Your task to perform on an android device: Open Youtube and go to "Your channel" Image 0: 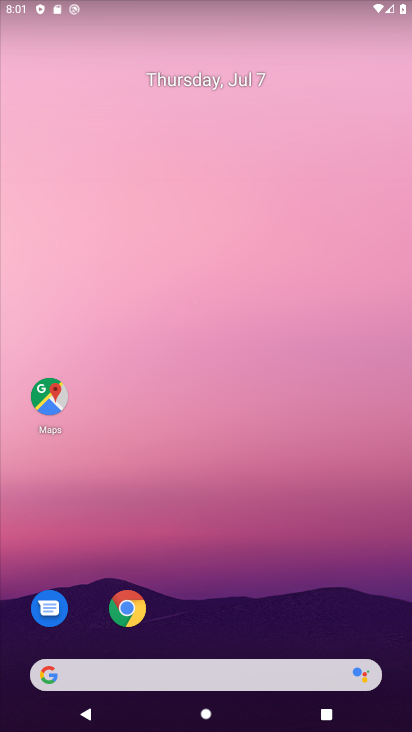
Step 0: drag from (188, 618) to (224, 206)
Your task to perform on an android device: Open Youtube and go to "Your channel" Image 1: 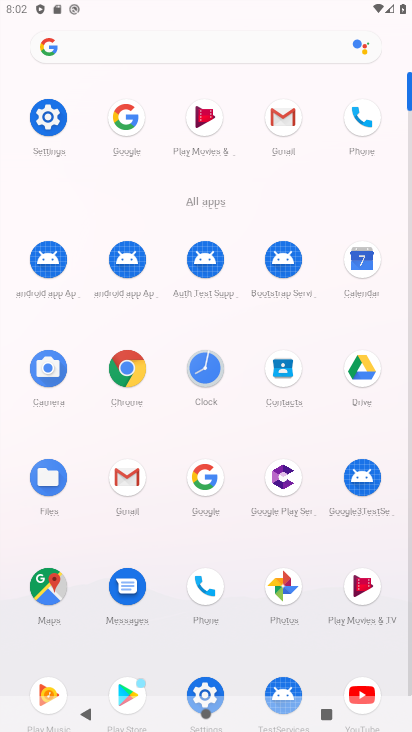
Step 1: drag from (237, 551) to (247, 291)
Your task to perform on an android device: Open Youtube and go to "Your channel" Image 2: 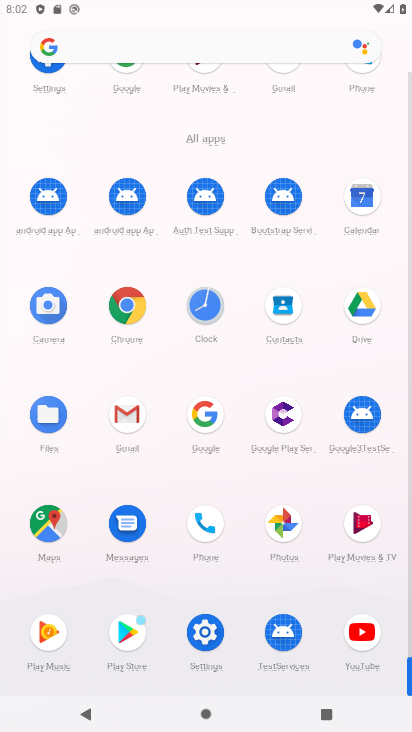
Step 2: click (350, 624)
Your task to perform on an android device: Open Youtube and go to "Your channel" Image 3: 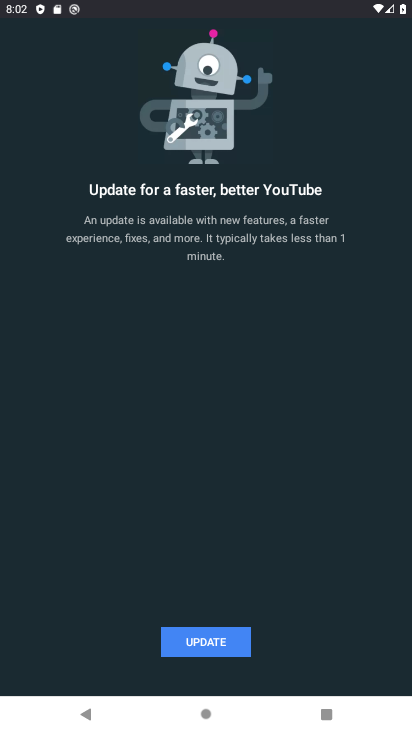
Step 3: click (204, 648)
Your task to perform on an android device: Open Youtube and go to "Your channel" Image 4: 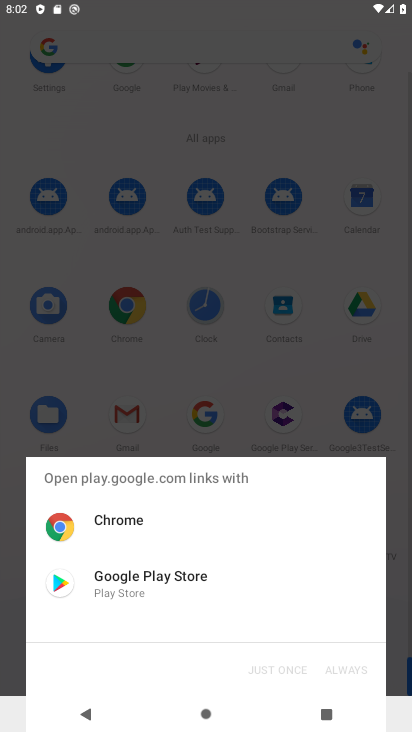
Step 4: click (186, 584)
Your task to perform on an android device: Open Youtube and go to "Your channel" Image 5: 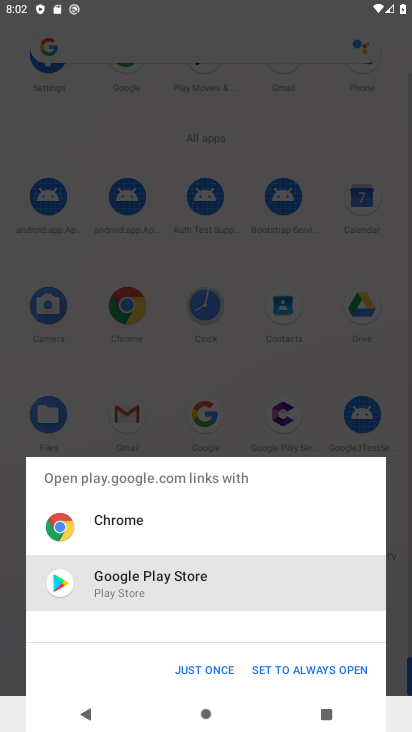
Step 5: click (206, 677)
Your task to perform on an android device: Open Youtube and go to "Your channel" Image 6: 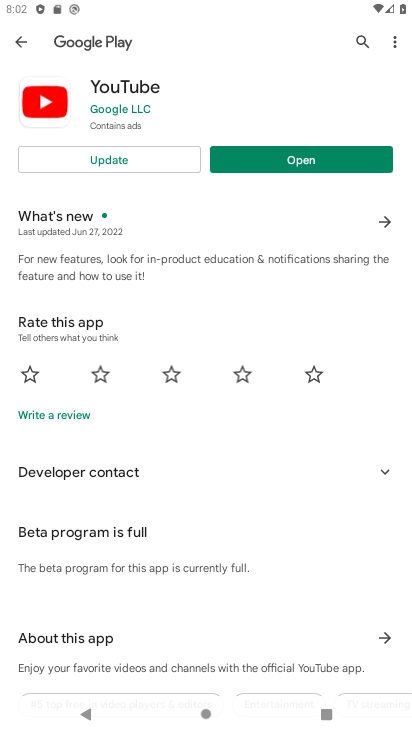
Step 6: click (125, 163)
Your task to perform on an android device: Open Youtube and go to "Your channel" Image 7: 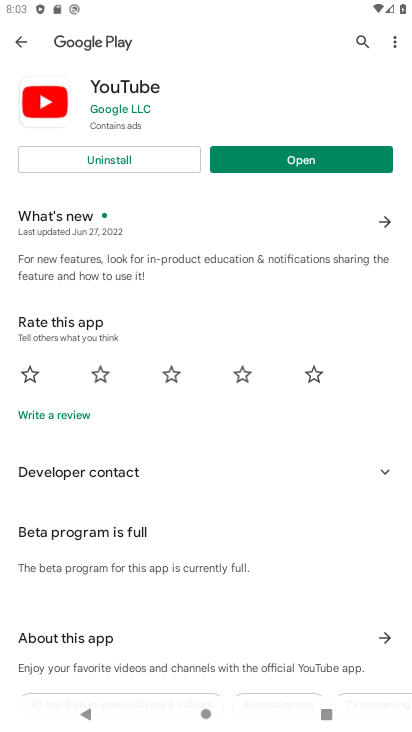
Step 7: click (250, 163)
Your task to perform on an android device: Open Youtube and go to "Your channel" Image 8: 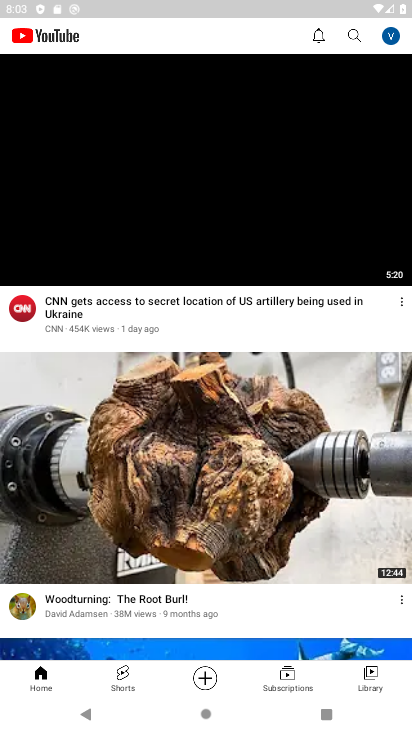
Step 8: click (393, 36)
Your task to perform on an android device: Open Youtube and go to "Your channel" Image 9: 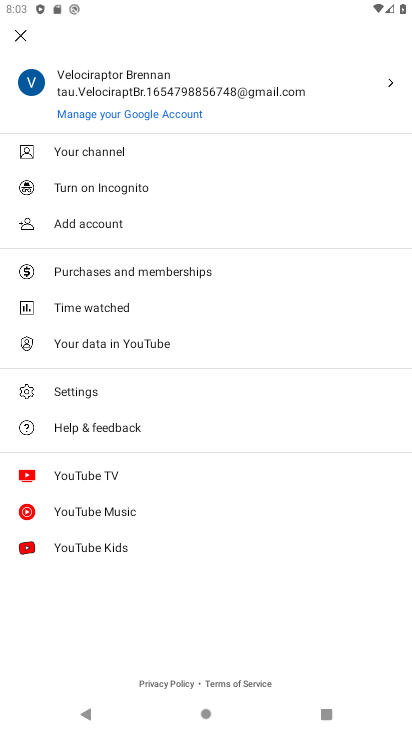
Step 9: click (113, 154)
Your task to perform on an android device: Open Youtube and go to "Your channel" Image 10: 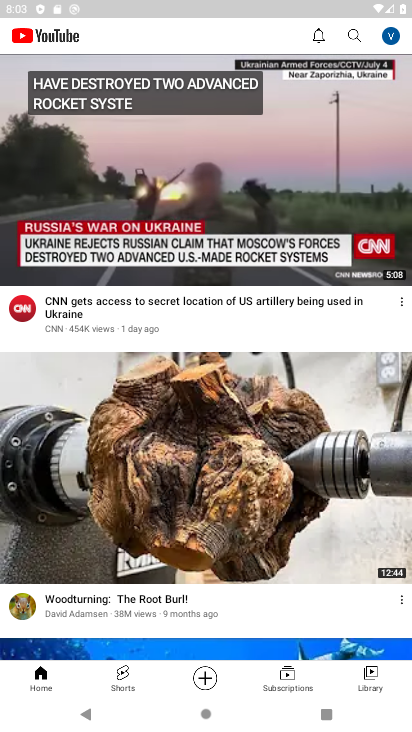
Step 10: click (383, 38)
Your task to perform on an android device: Open Youtube and go to "Your channel" Image 11: 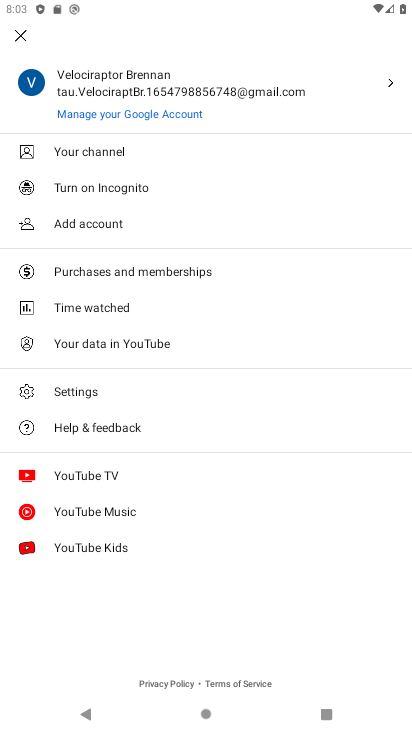
Step 11: click (127, 154)
Your task to perform on an android device: Open Youtube and go to "Your channel" Image 12: 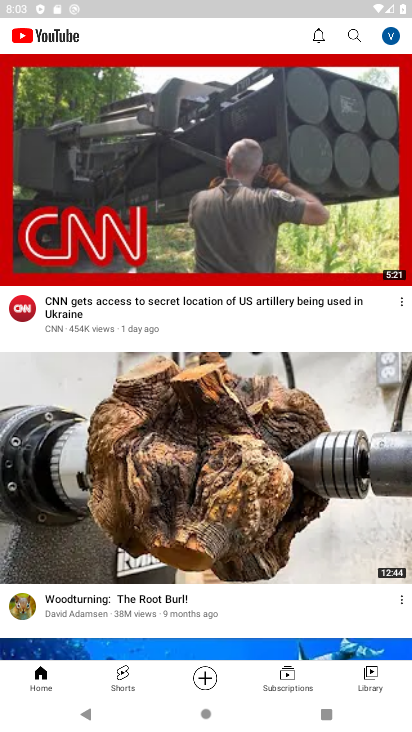
Step 12: task complete